Your task to perform on an android device: check data usage Image 0: 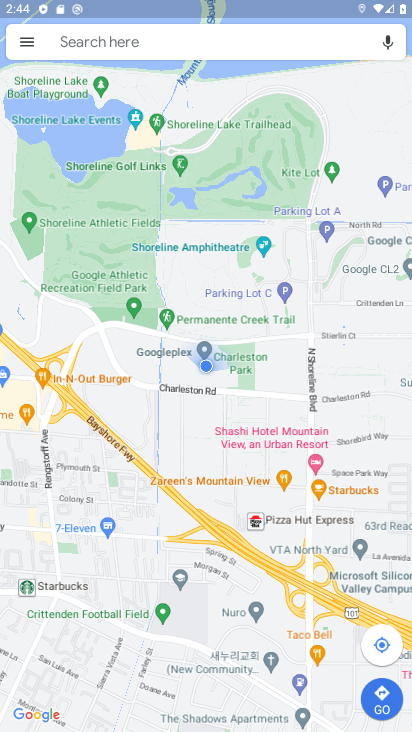
Step 0: drag from (334, 5) to (266, 639)
Your task to perform on an android device: check data usage Image 1: 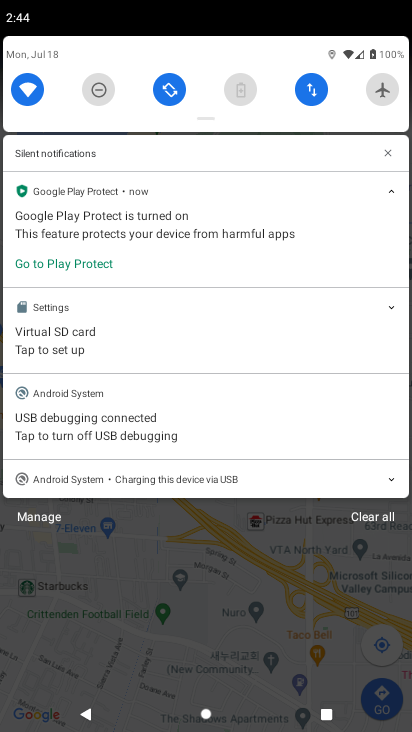
Step 1: click (305, 90)
Your task to perform on an android device: check data usage Image 2: 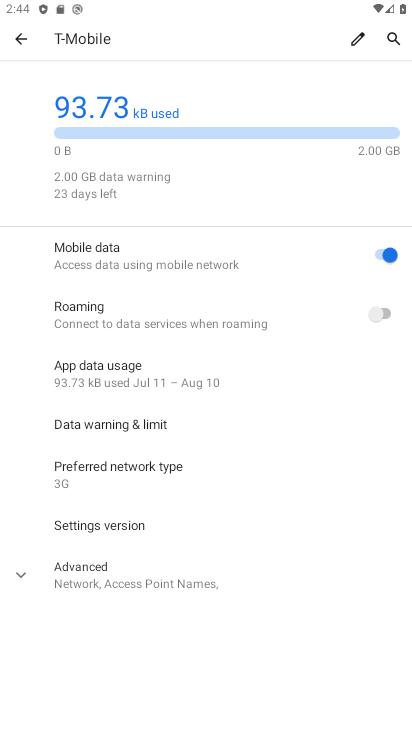
Step 2: task complete